Your task to perform on an android device: add a label to a message in the gmail app Image 0: 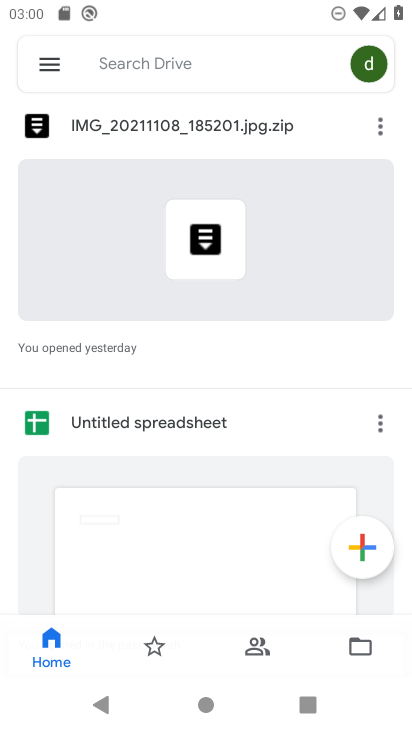
Step 0: press home button
Your task to perform on an android device: add a label to a message in the gmail app Image 1: 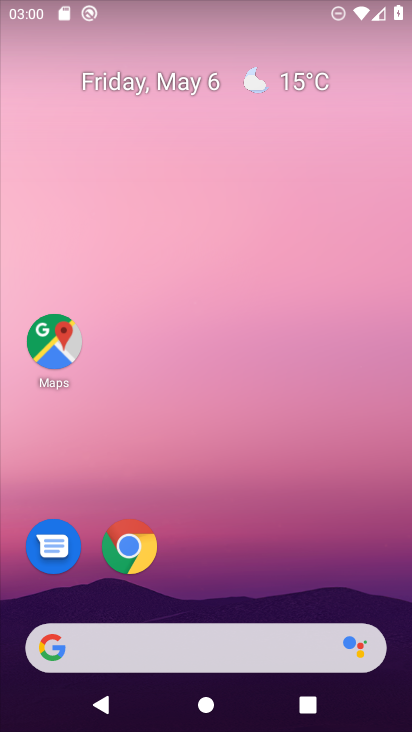
Step 1: drag from (253, 571) to (264, 56)
Your task to perform on an android device: add a label to a message in the gmail app Image 2: 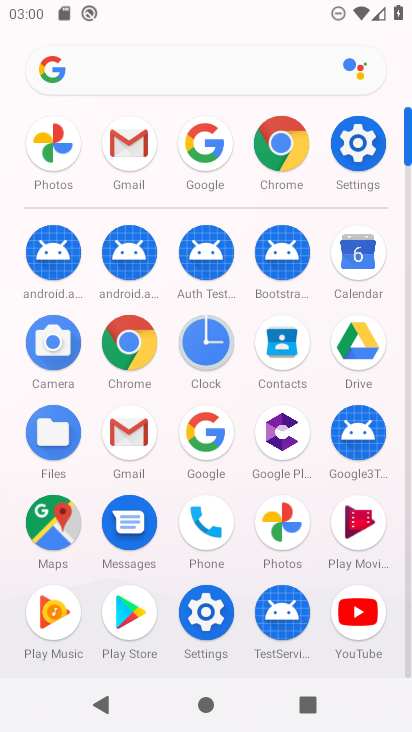
Step 2: click (135, 145)
Your task to perform on an android device: add a label to a message in the gmail app Image 3: 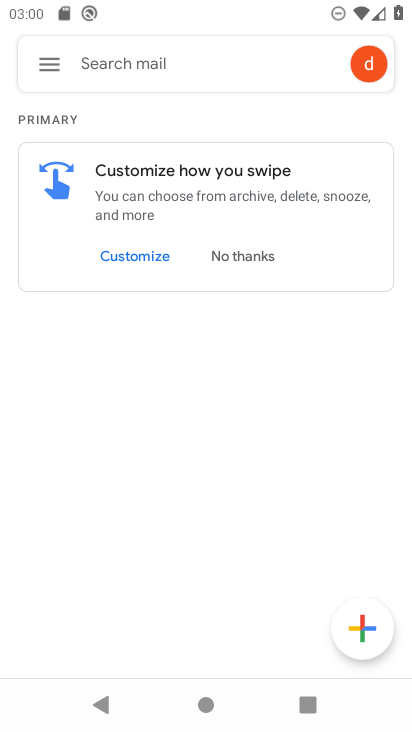
Step 3: click (42, 53)
Your task to perform on an android device: add a label to a message in the gmail app Image 4: 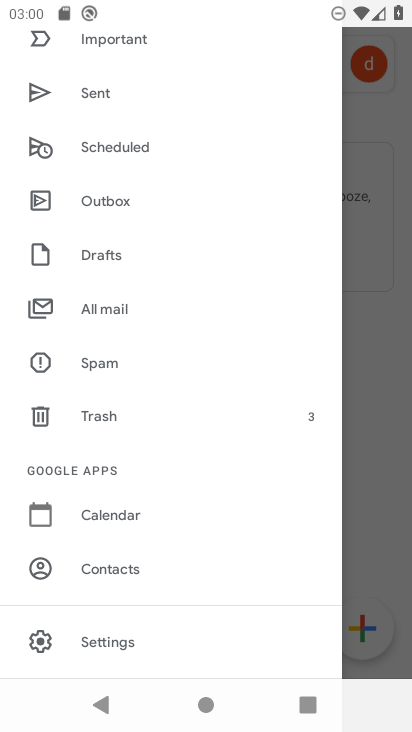
Step 4: click (103, 320)
Your task to perform on an android device: add a label to a message in the gmail app Image 5: 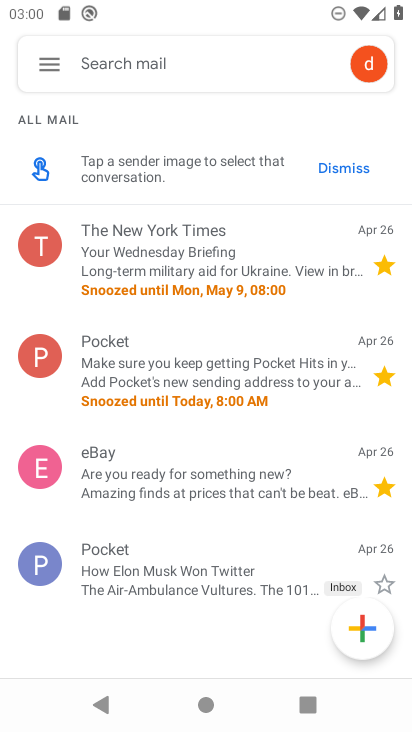
Step 5: click (325, 255)
Your task to perform on an android device: add a label to a message in the gmail app Image 6: 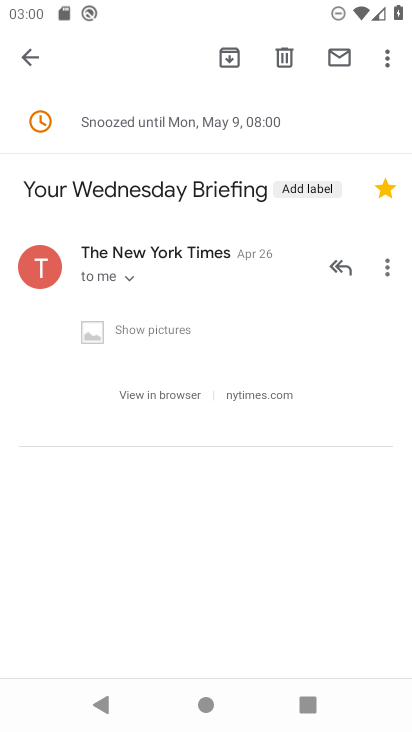
Step 6: click (387, 59)
Your task to perform on an android device: add a label to a message in the gmail app Image 7: 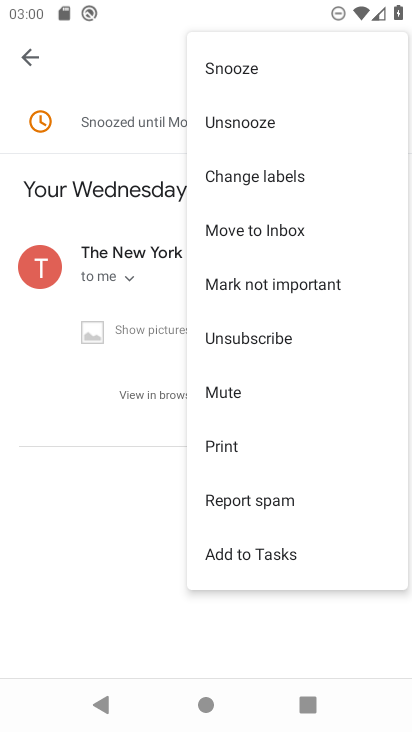
Step 7: click (291, 177)
Your task to perform on an android device: add a label to a message in the gmail app Image 8: 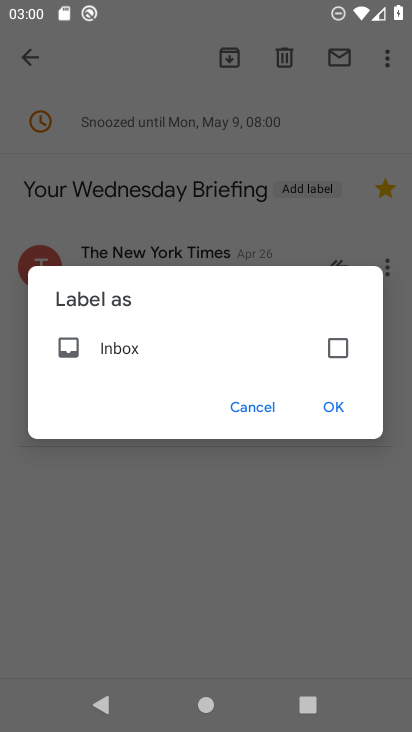
Step 8: click (337, 346)
Your task to perform on an android device: add a label to a message in the gmail app Image 9: 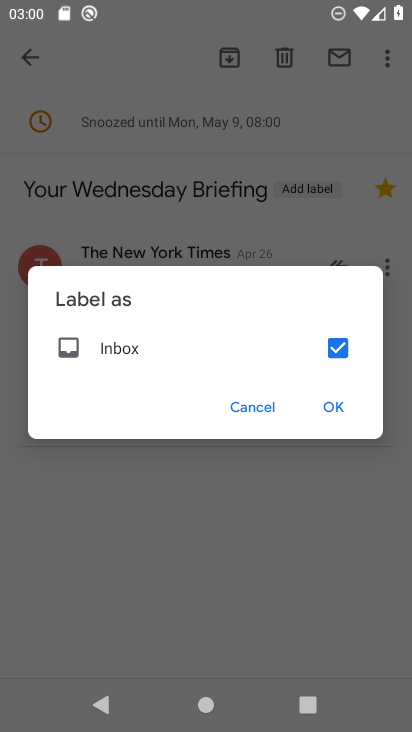
Step 9: click (339, 406)
Your task to perform on an android device: add a label to a message in the gmail app Image 10: 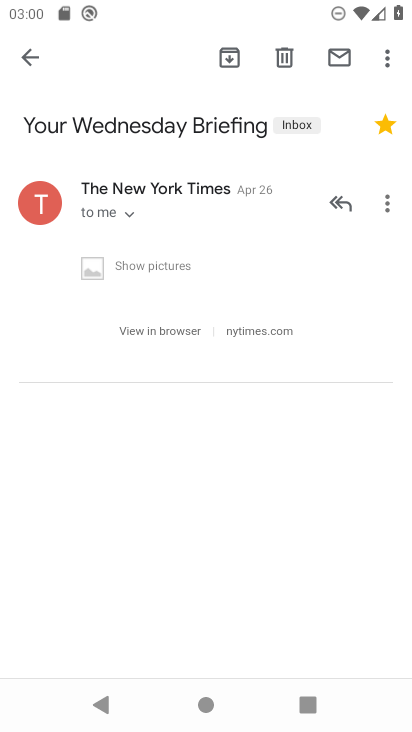
Step 10: task complete